Your task to perform on an android device: turn off airplane mode Image 0: 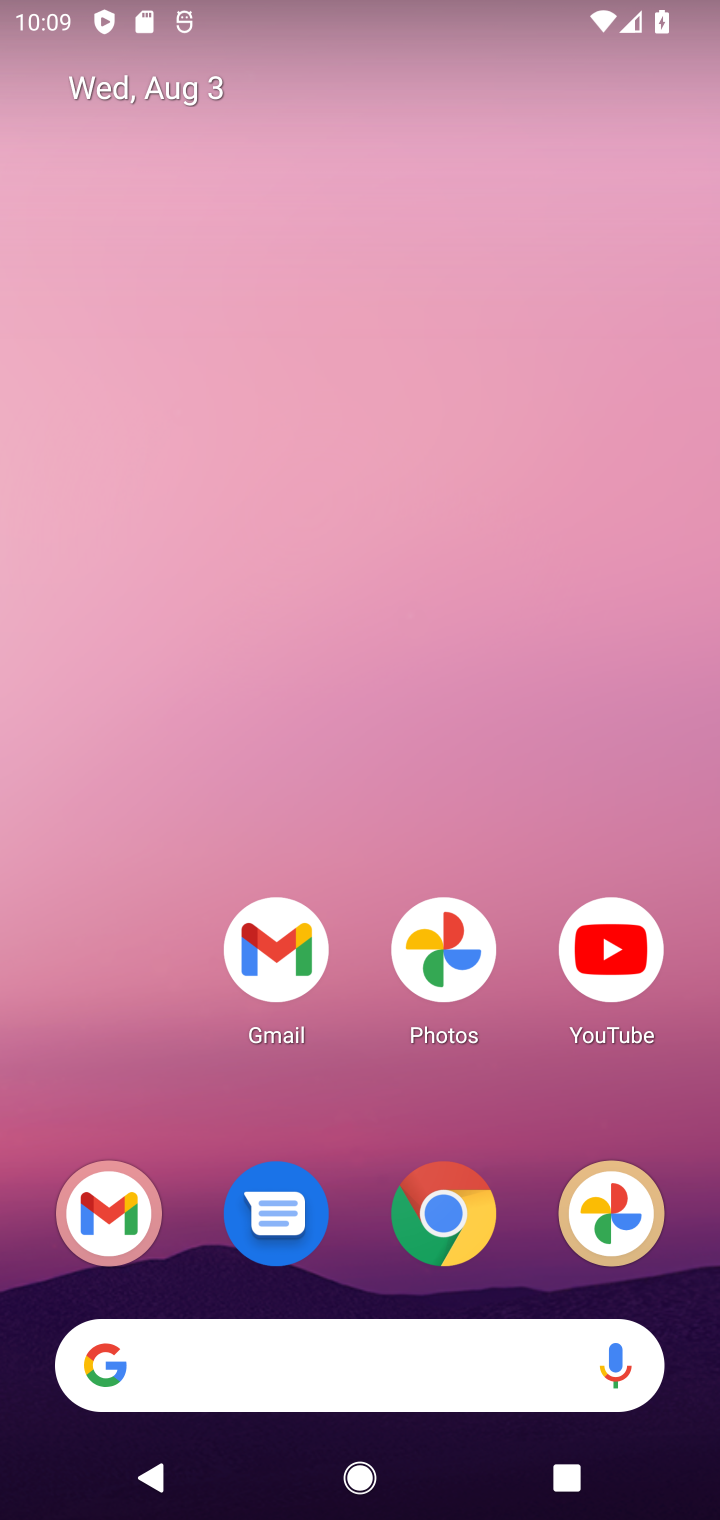
Step 0: drag from (552, 20) to (498, 750)
Your task to perform on an android device: turn off airplane mode Image 1: 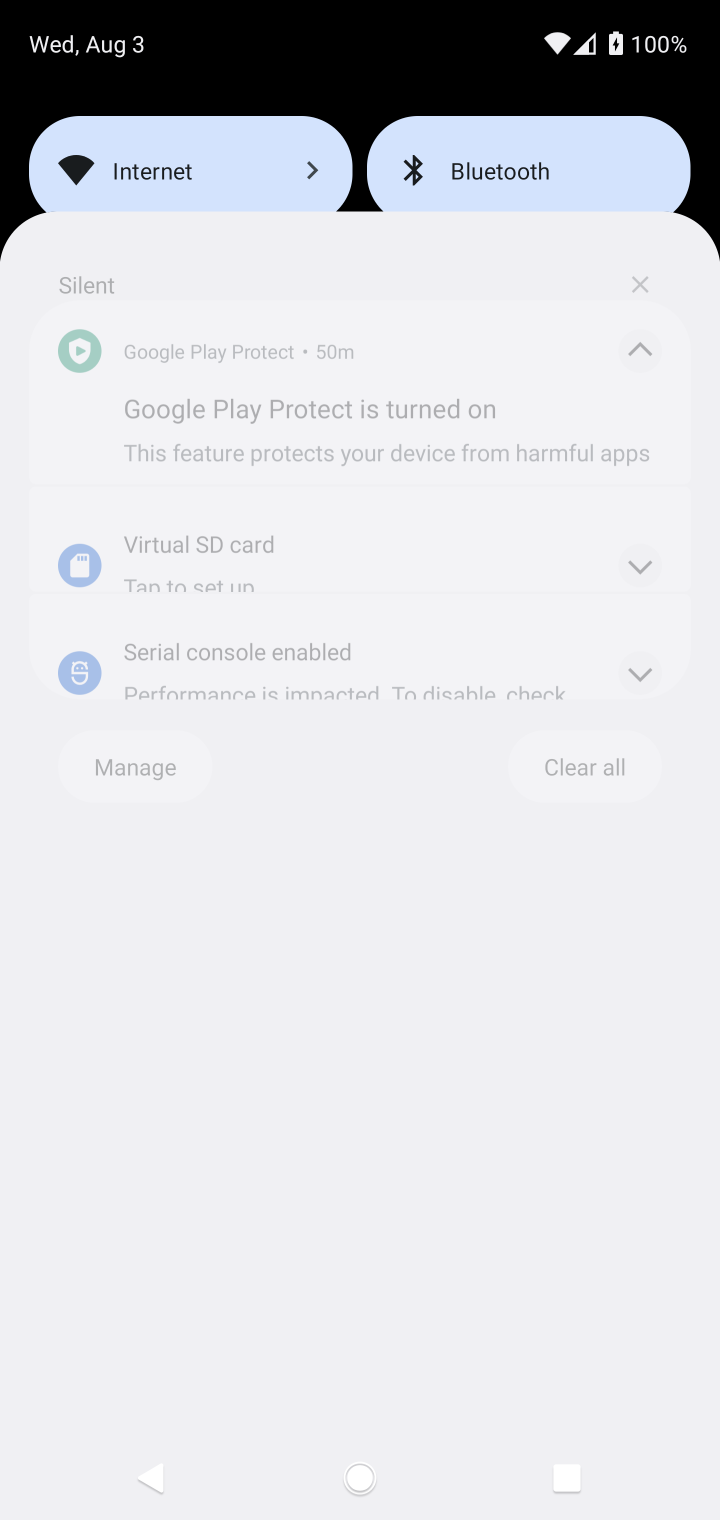
Step 1: task complete